Your task to perform on an android device: turn on wifi Image 0: 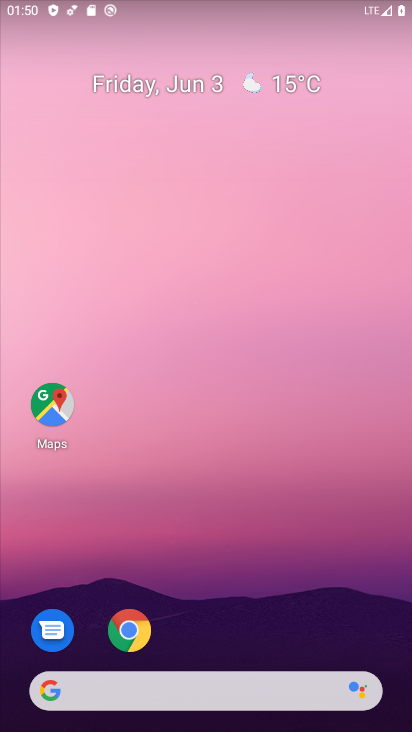
Step 0: drag from (356, 574) to (323, 157)
Your task to perform on an android device: turn on wifi Image 1: 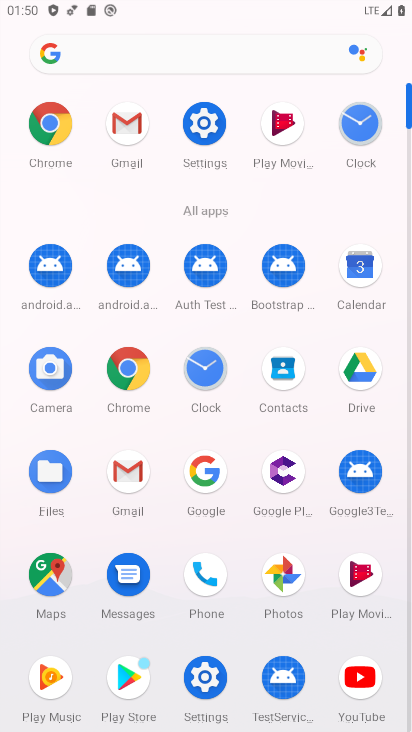
Step 1: click (221, 127)
Your task to perform on an android device: turn on wifi Image 2: 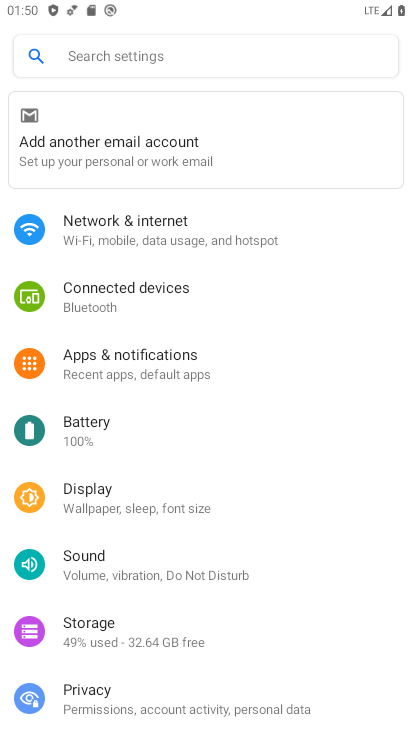
Step 2: click (145, 221)
Your task to perform on an android device: turn on wifi Image 3: 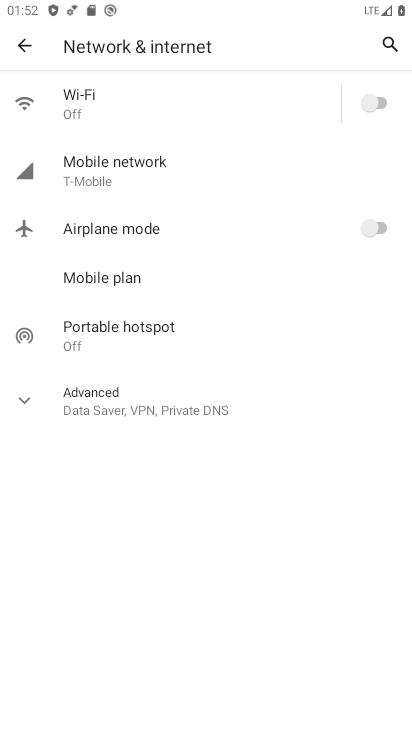
Step 3: click (381, 99)
Your task to perform on an android device: turn on wifi Image 4: 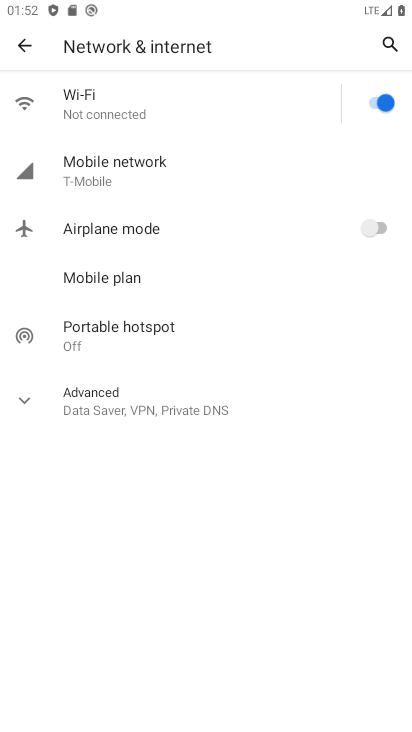
Step 4: task complete